Your task to perform on an android device: check google app version Image 0: 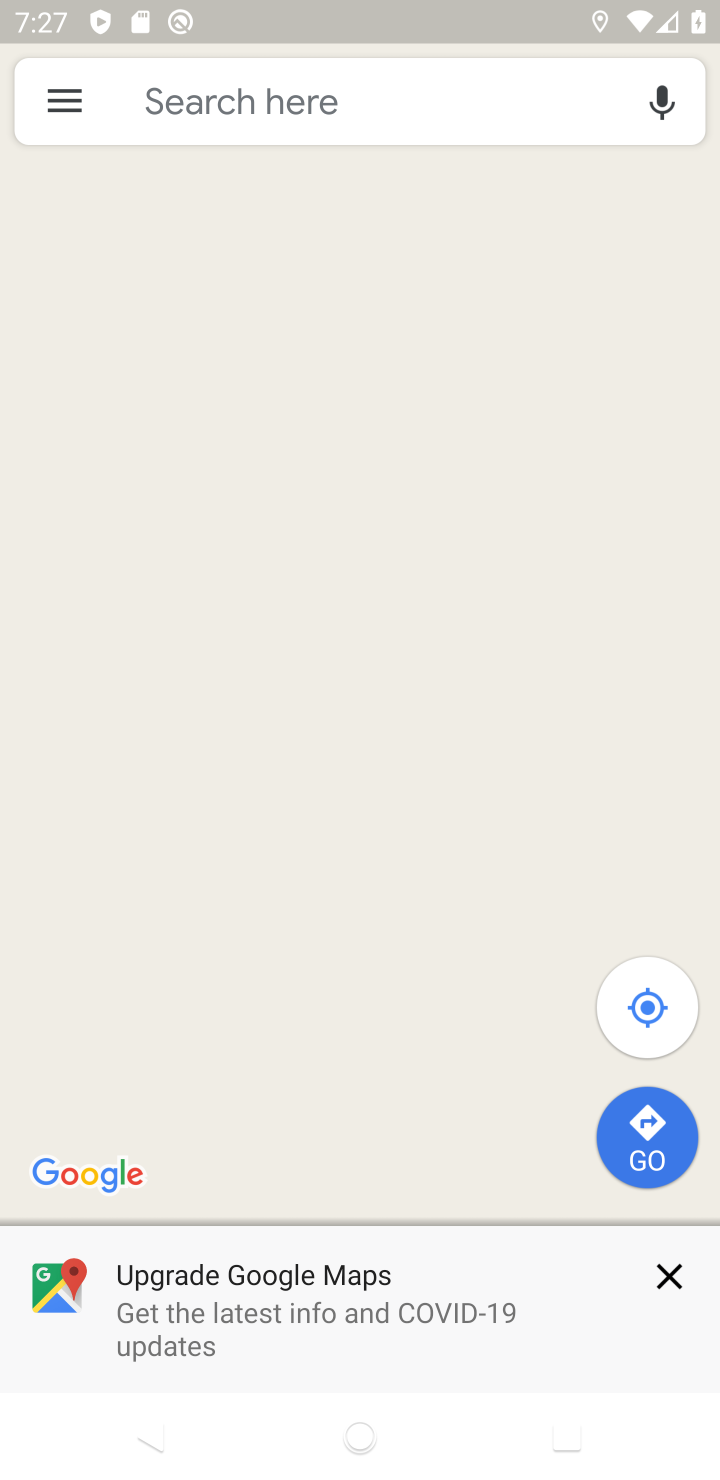
Step 0: press home button
Your task to perform on an android device: check google app version Image 1: 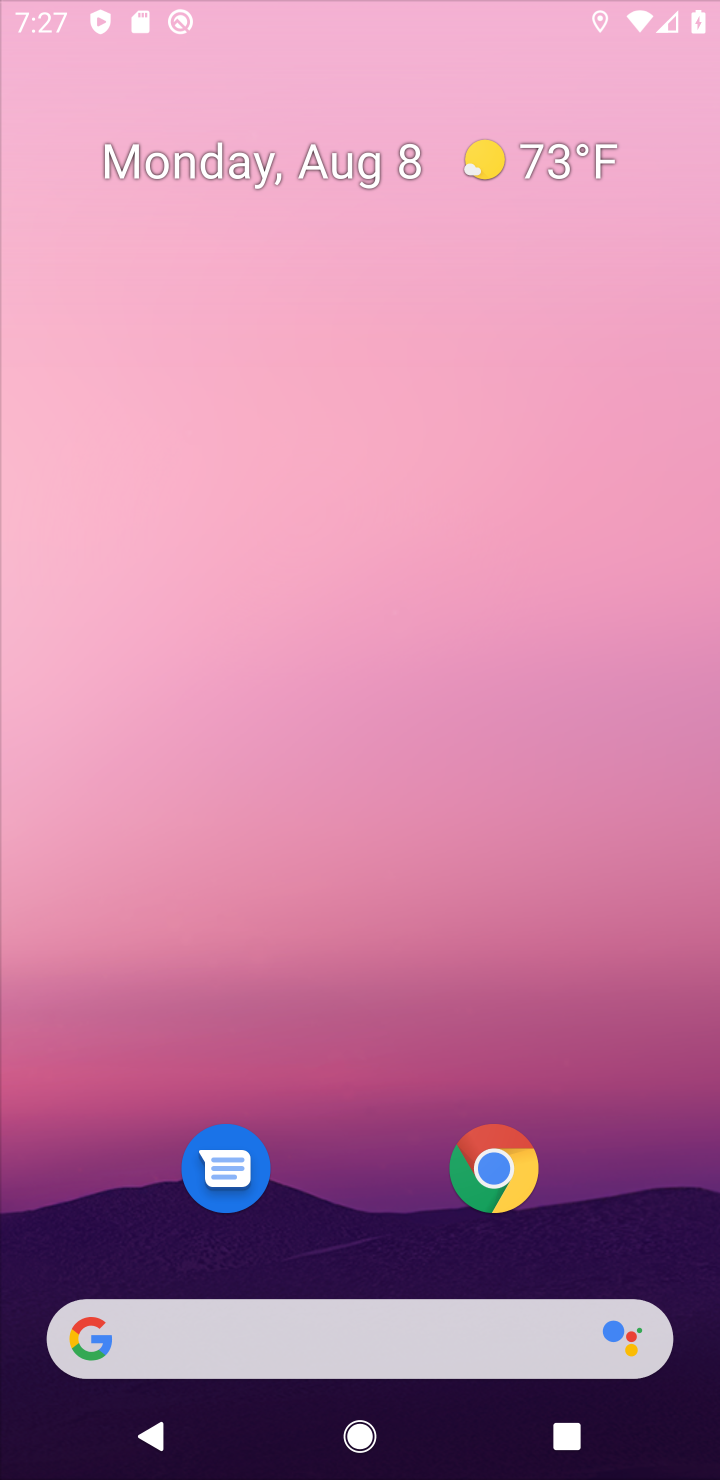
Step 1: drag from (315, 1344) to (553, 403)
Your task to perform on an android device: check google app version Image 2: 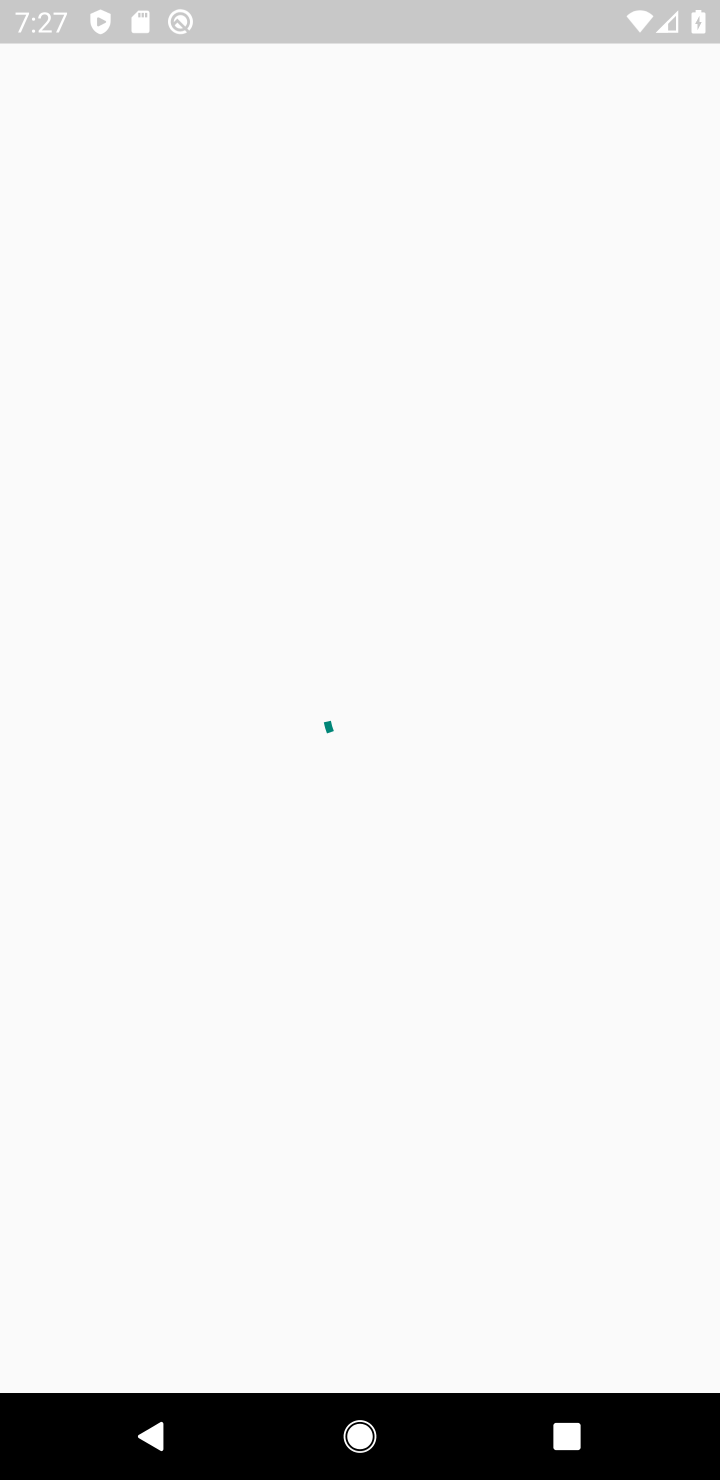
Step 2: press back button
Your task to perform on an android device: check google app version Image 3: 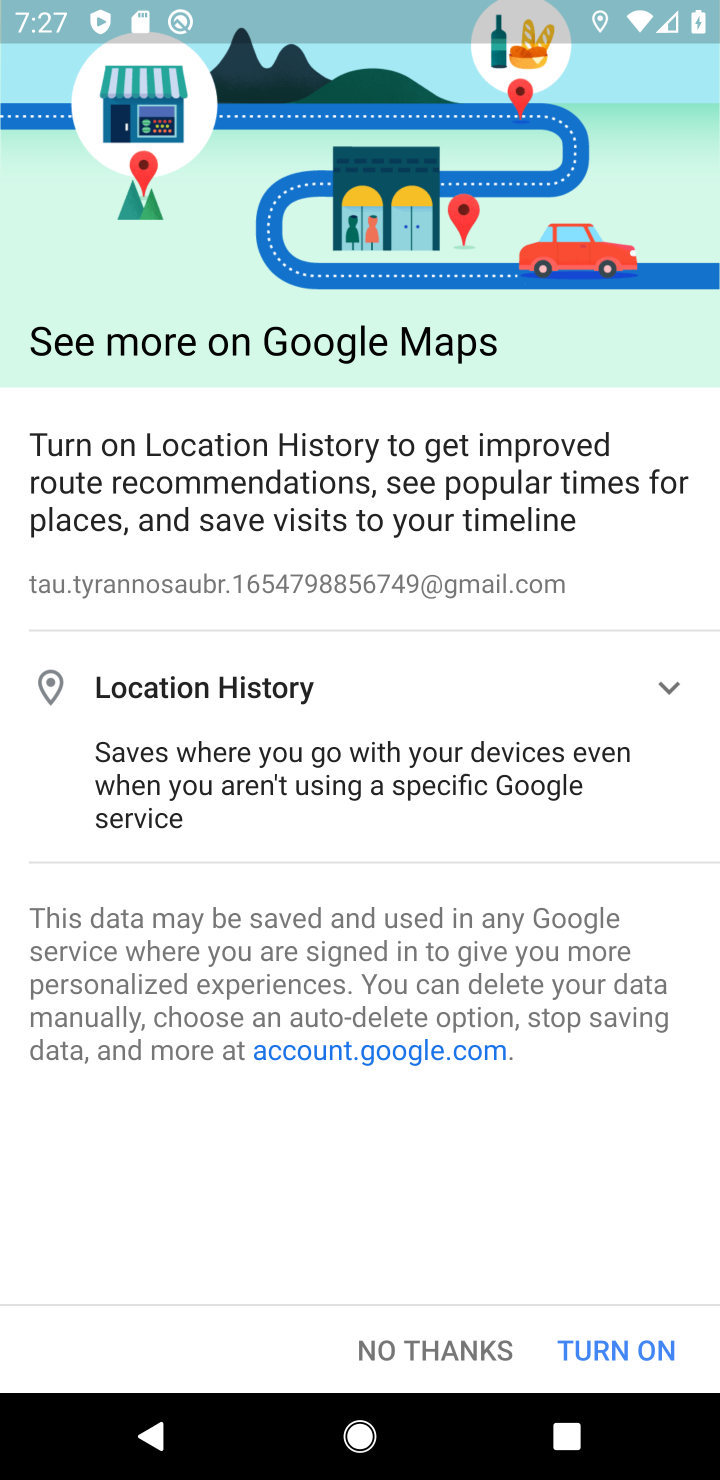
Step 3: press back button
Your task to perform on an android device: check google app version Image 4: 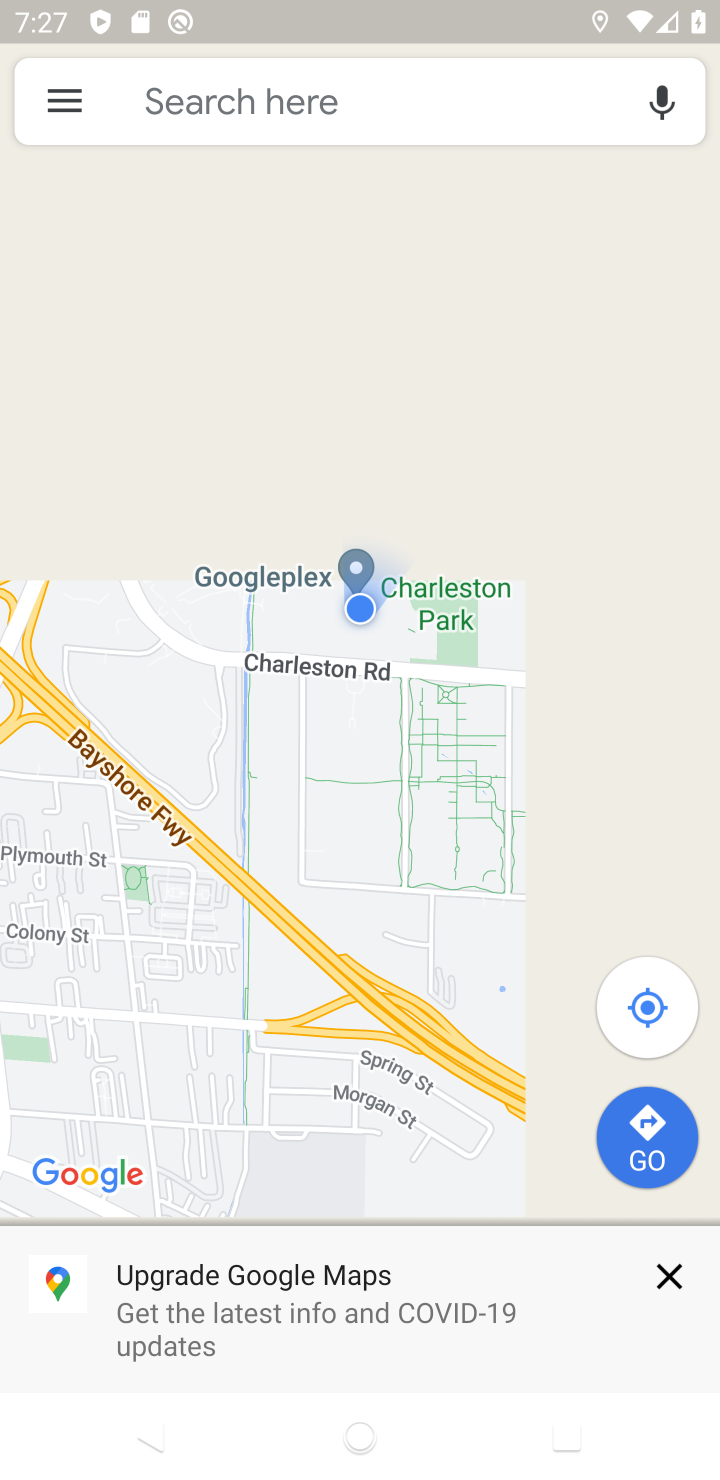
Step 4: press home button
Your task to perform on an android device: check google app version Image 5: 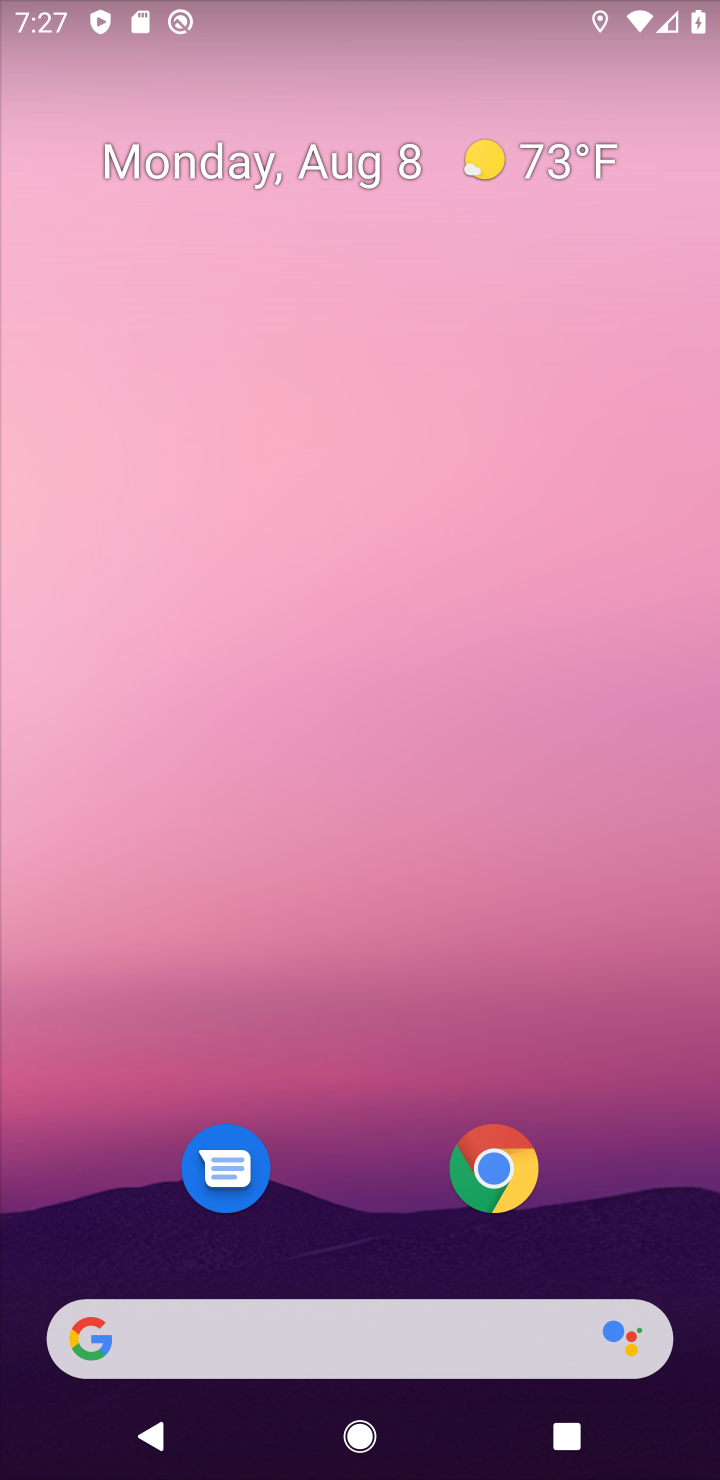
Step 5: press home button
Your task to perform on an android device: check google app version Image 6: 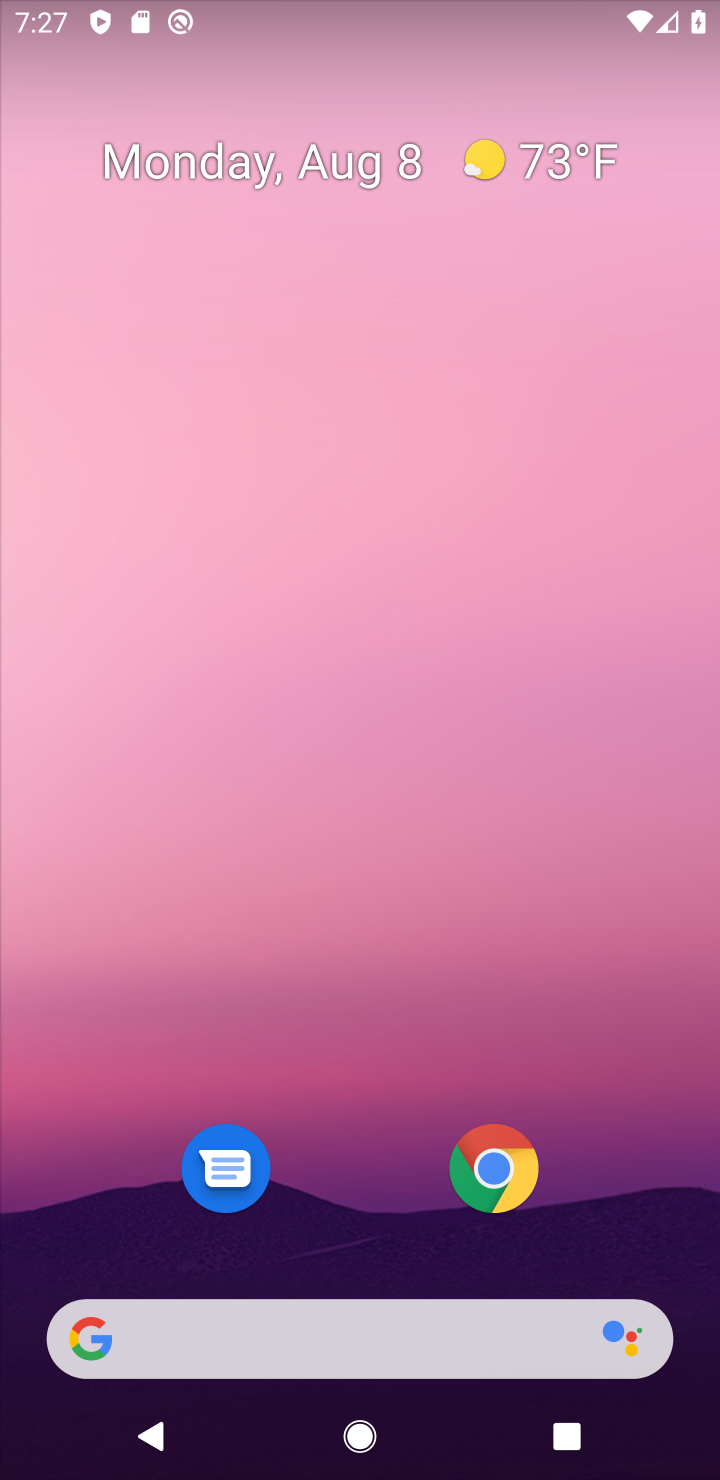
Step 6: drag from (398, 1266) to (564, 458)
Your task to perform on an android device: check google app version Image 7: 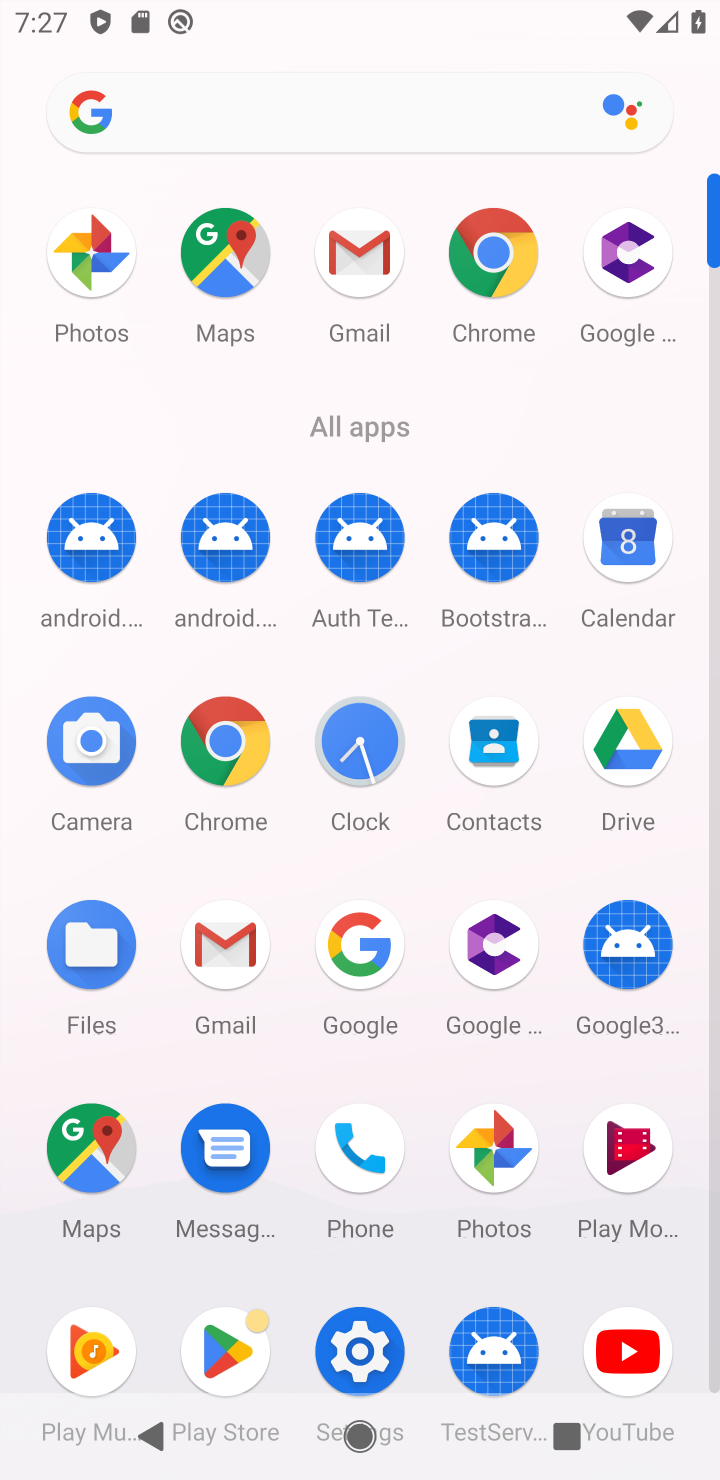
Step 7: click (376, 950)
Your task to perform on an android device: check google app version Image 8: 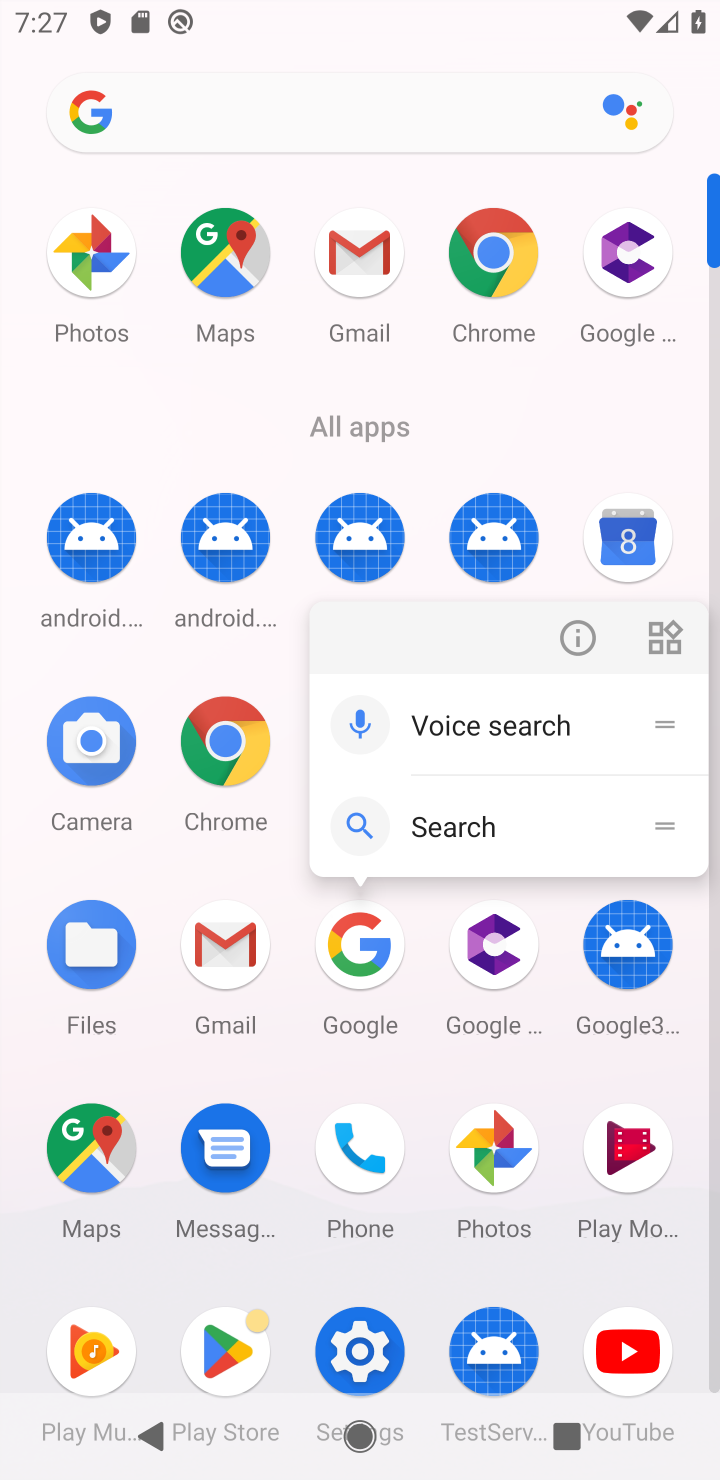
Step 8: click (583, 640)
Your task to perform on an android device: check google app version Image 9: 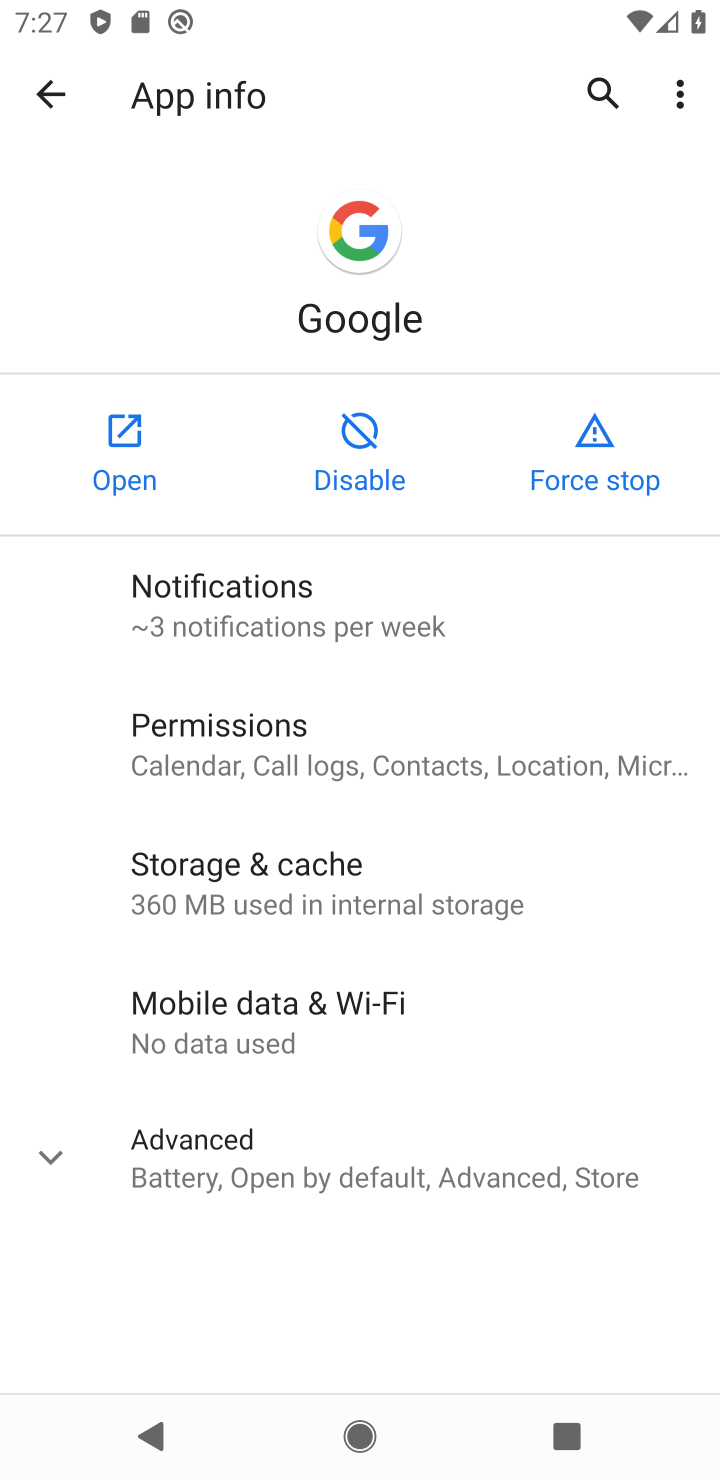
Step 9: click (169, 1156)
Your task to perform on an android device: check google app version Image 10: 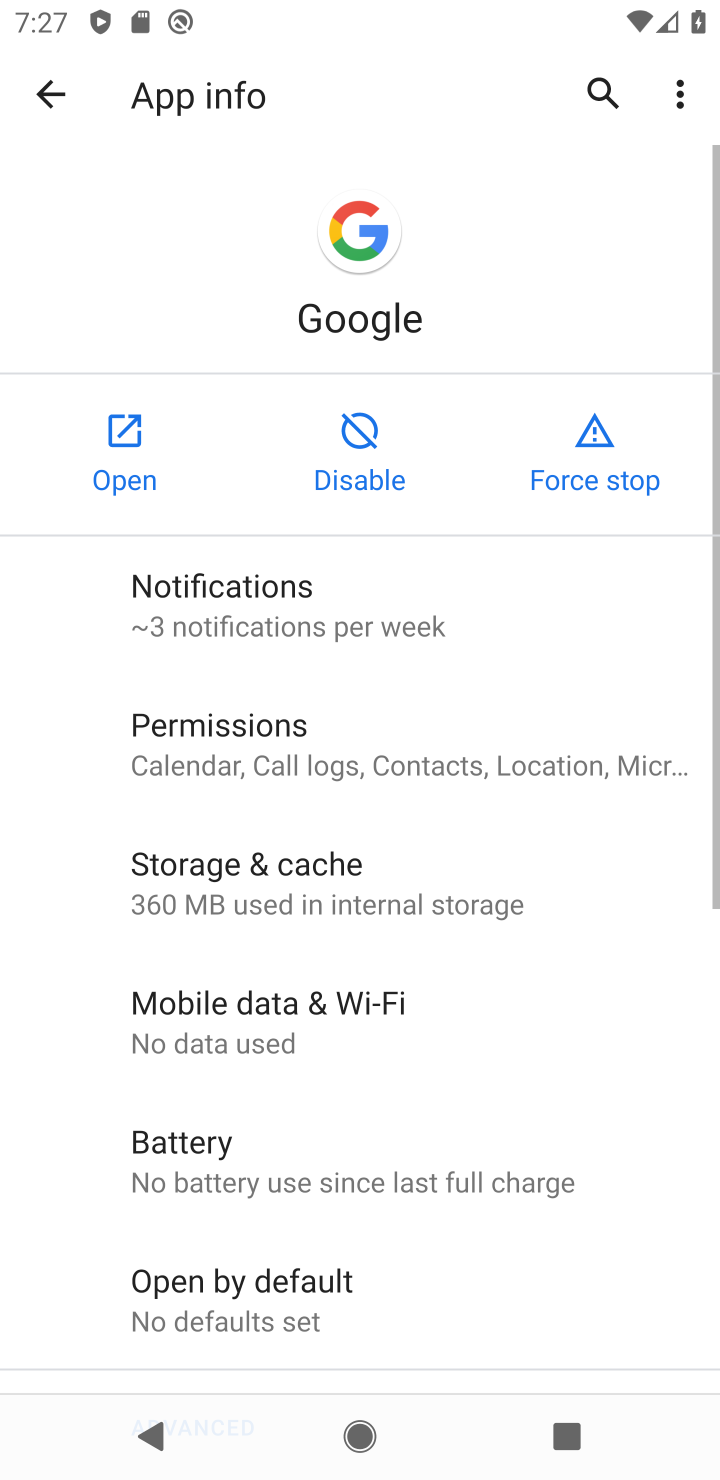
Step 10: task complete